Your task to perform on an android device: toggle wifi Image 0: 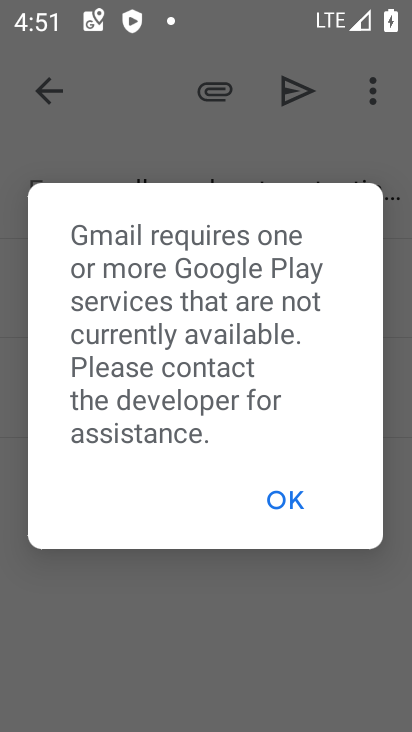
Step 0: click (288, 496)
Your task to perform on an android device: toggle wifi Image 1: 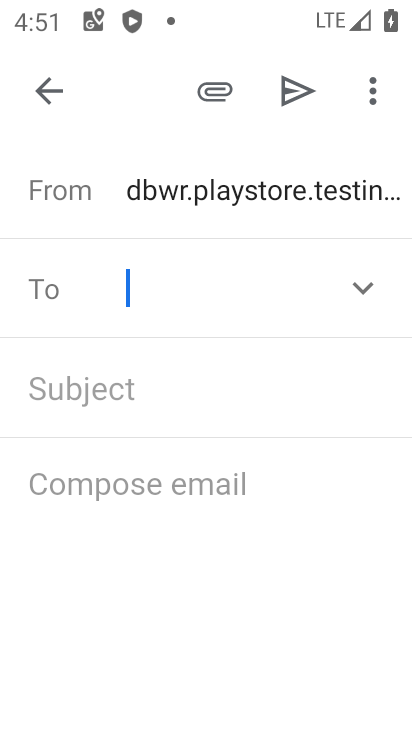
Step 1: press back button
Your task to perform on an android device: toggle wifi Image 2: 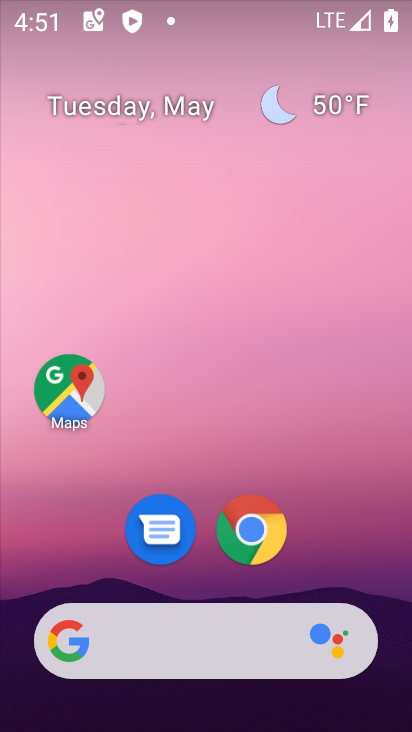
Step 2: drag from (359, 571) to (218, 8)
Your task to perform on an android device: toggle wifi Image 3: 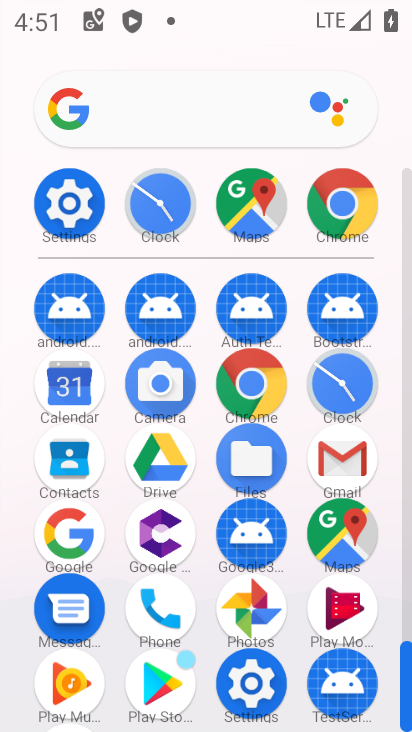
Step 3: drag from (7, 610) to (14, 204)
Your task to perform on an android device: toggle wifi Image 4: 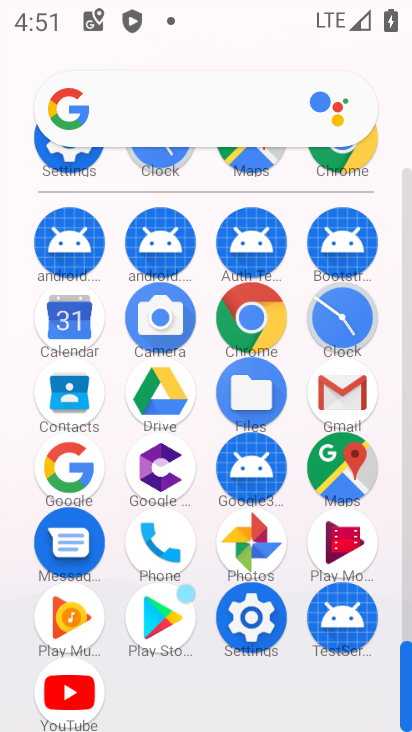
Step 4: click (248, 620)
Your task to perform on an android device: toggle wifi Image 5: 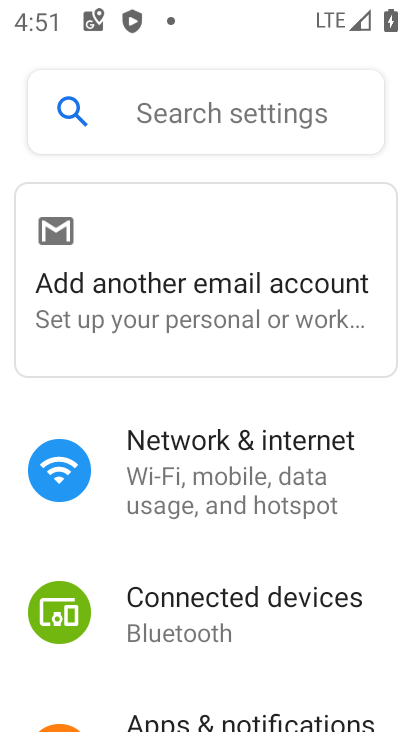
Step 5: click (233, 504)
Your task to perform on an android device: toggle wifi Image 6: 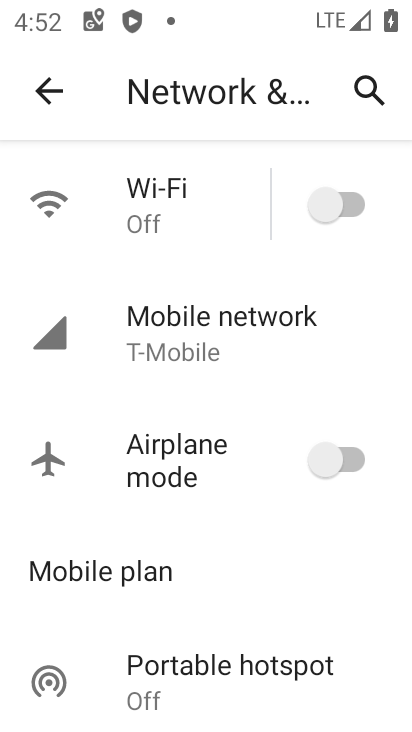
Step 6: click (329, 196)
Your task to perform on an android device: toggle wifi Image 7: 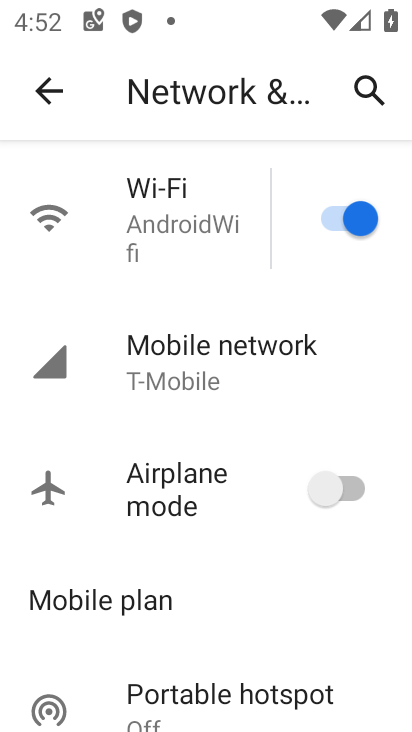
Step 7: task complete